Your task to perform on an android device: open app "Google Photos" Image 0: 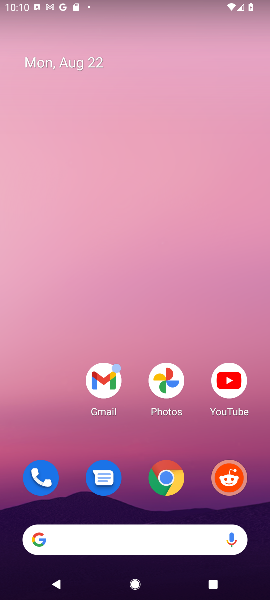
Step 0: click (177, 378)
Your task to perform on an android device: open app "Google Photos" Image 1: 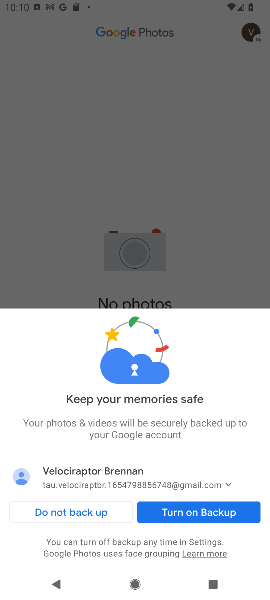
Step 1: task complete